Your task to perform on an android device: add a label to a message in the gmail app Image 0: 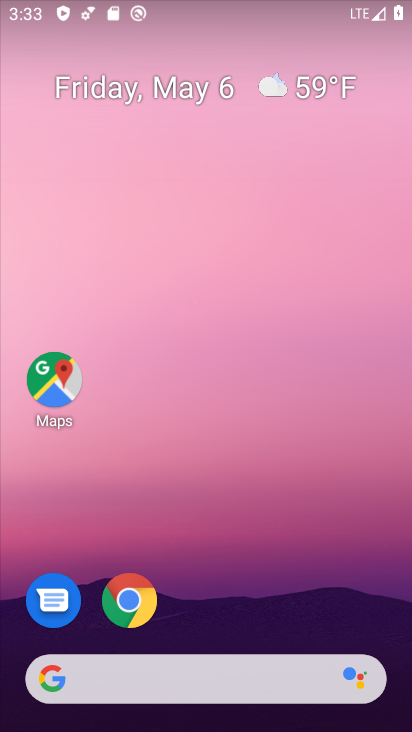
Step 0: drag from (225, 616) to (284, 62)
Your task to perform on an android device: add a label to a message in the gmail app Image 1: 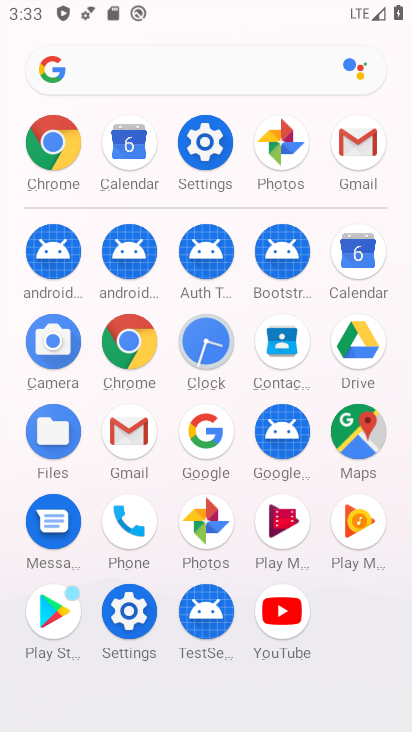
Step 1: click (117, 439)
Your task to perform on an android device: add a label to a message in the gmail app Image 2: 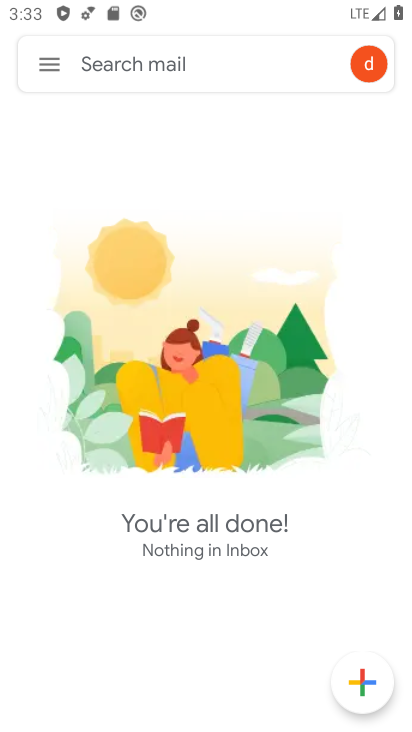
Step 2: click (51, 63)
Your task to perform on an android device: add a label to a message in the gmail app Image 3: 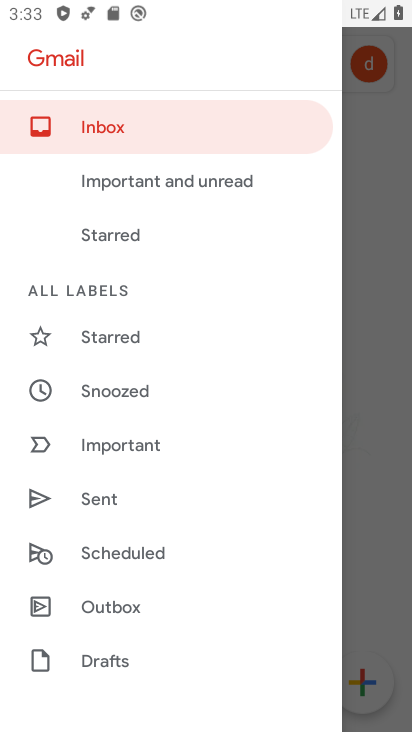
Step 3: drag from (113, 617) to (152, 399)
Your task to perform on an android device: add a label to a message in the gmail app Image 4: 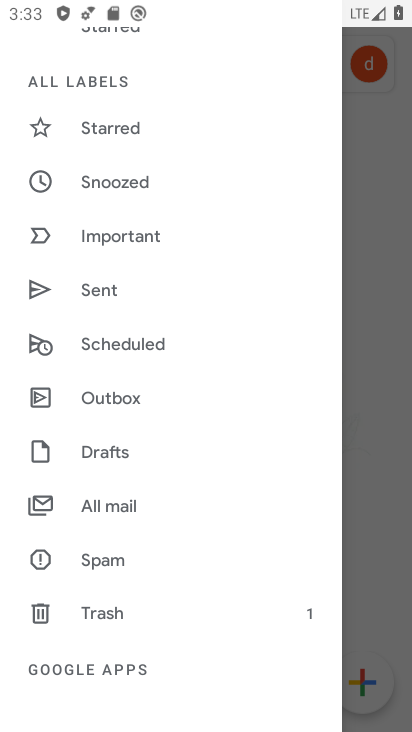
Step 4: click (115, 509)
Your task to perform on an android device: add a label to a message in the gmail app Image 5: 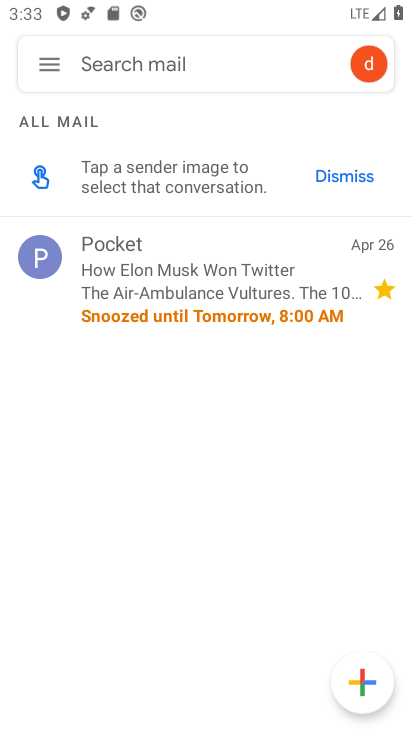
Step 5: click (45, 266)
Your task to perform on an android device: add a label to a message in the gmail app Image 6: 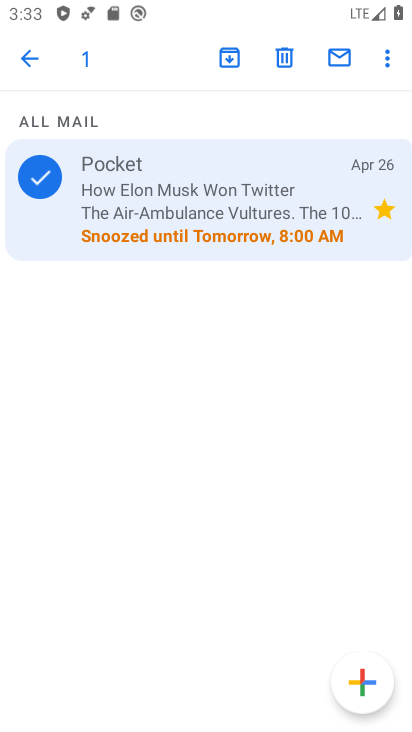
Step 6: click (382, 58)
Your task to perform on an android device: add a label to a message in the gmail app Image 7: 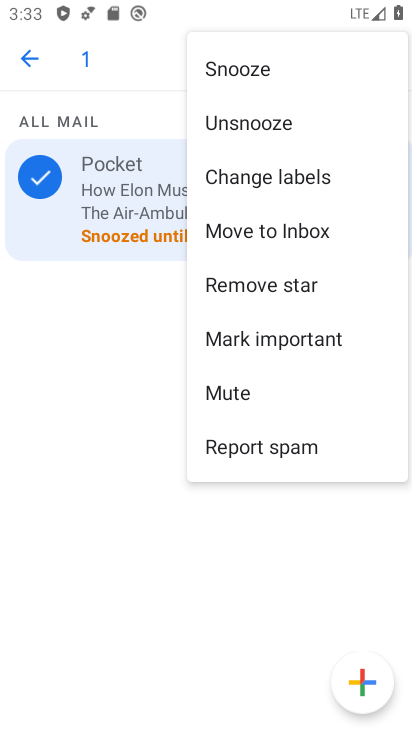
Step 7: click (309, 184)
Your task to perform on an android device: add a label to a message in the gmail app Image 8: 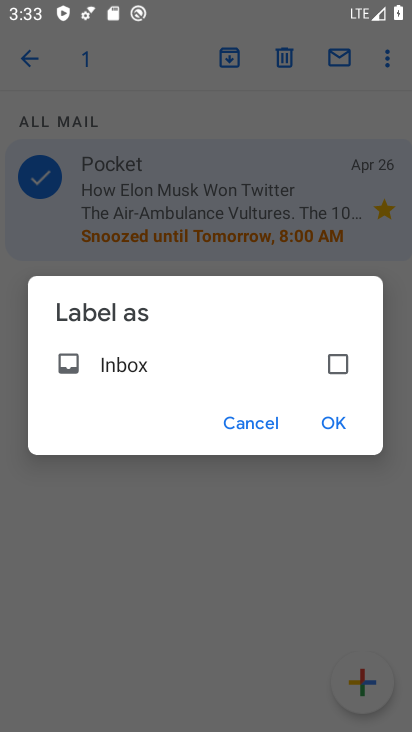
Step 8: click (340, 356)
Your task to perform on an android device: add a label to a message in the gmail app Image 9: 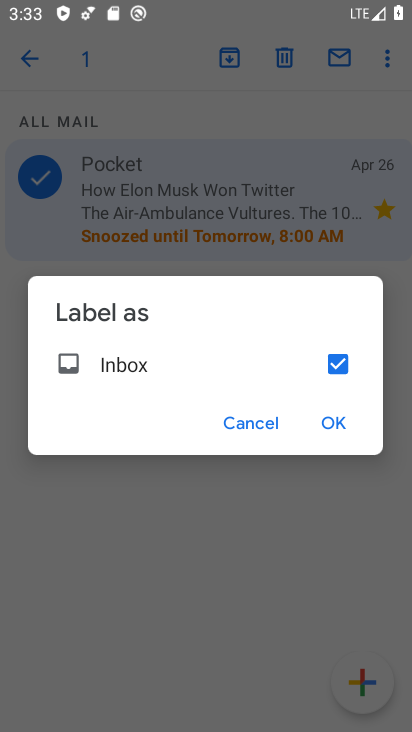
Step 9: click (334, 423)
Your task to perform on an android device: add a label to a message in the gmail app Image 10: 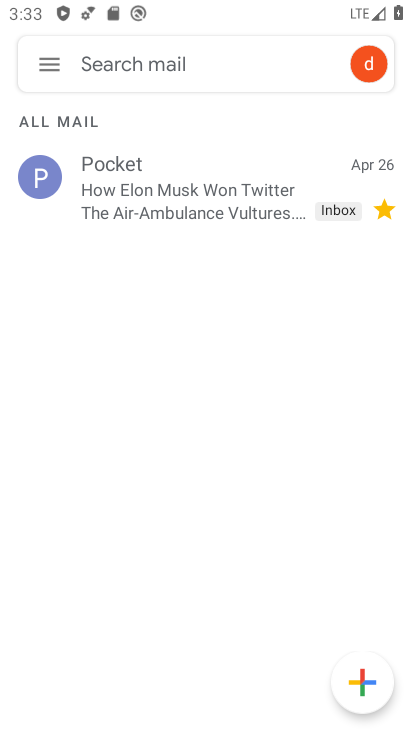
Step 10: task complete